Your task to perform on an android device: turn off improve location accuracy Image 0: 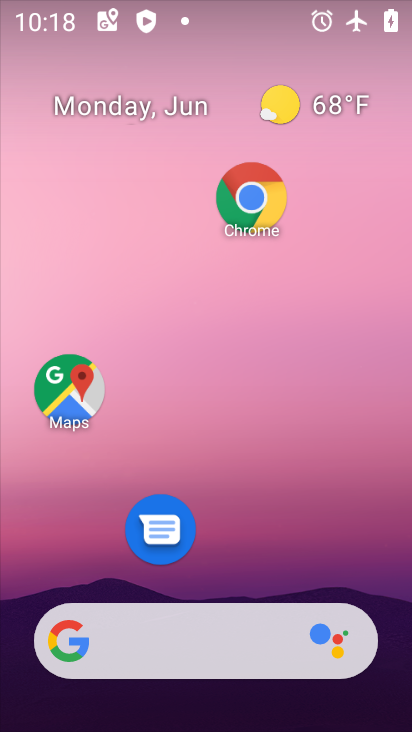
Step 0: drag from (212, 551) to (197, 228)
Your task to perform on an android device: turn off improve location accuracy Image 1: 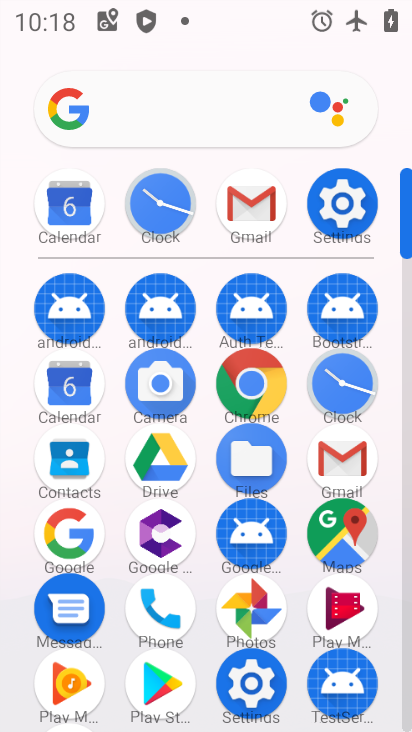
Step 1: click (321, 214)
Your task to perform on an android device: turn off improve location accuracy Image 2: 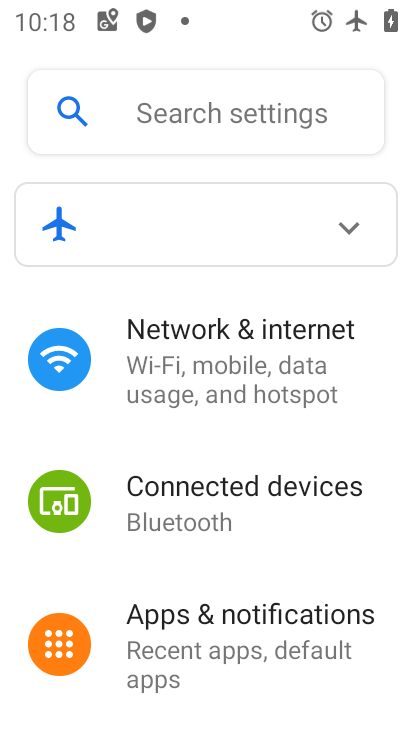
Step 2: drag from (195, 644) to (210, 290)
Your task to perform on an android device: turn off improve location accuracy Image 3: 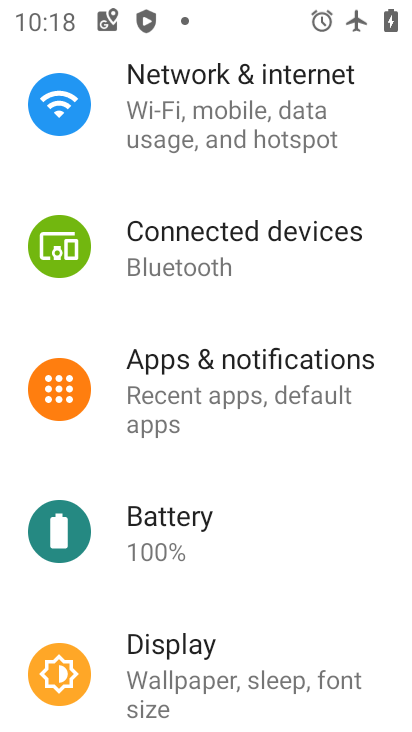
Step 3: drag from (206, 594) to (238, 331)
Your task to perform on an android device: turn off improve location accuracy Image 4: 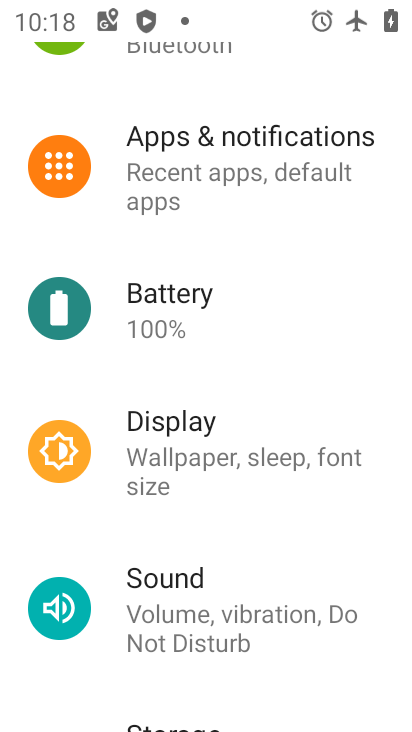
Step 4: drag from (237, 597) to (272, 306)
Your task to perform on an android device: turn off improve location accuracy Image 5: 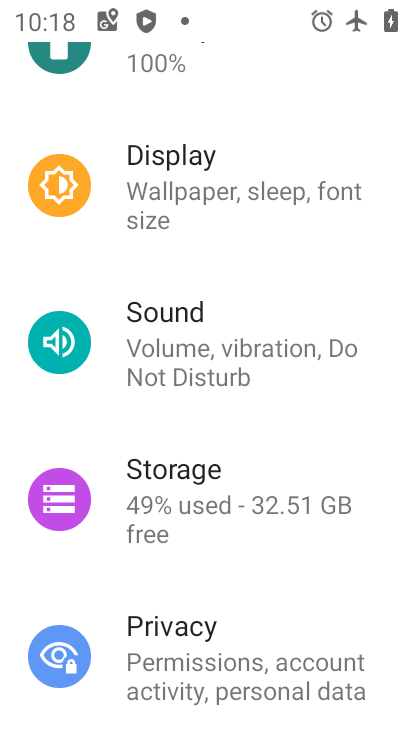
Step 5: drag from (217, 601) to (272, 313)
Your task to perform on an android device: turn off improve location accuracy Image 6: 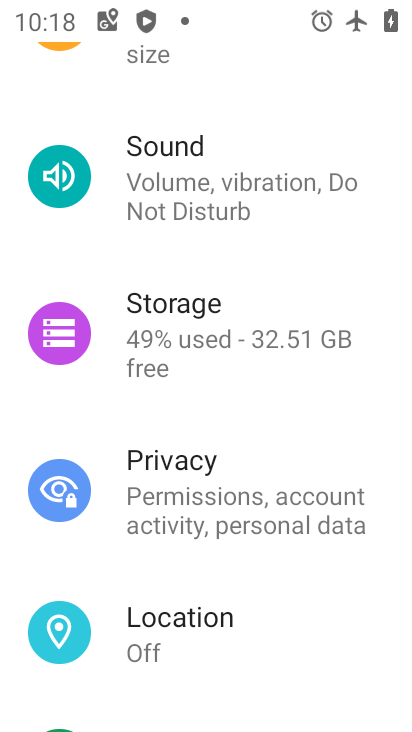
Step 6: click (247, 633)
Your task to perform on an android device: turn off improve location accuracy Image 7: 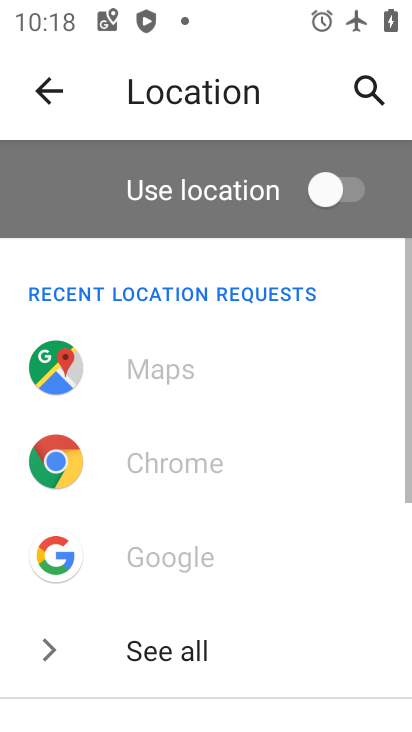
Step 7: drag from (247, 630) to (249, 328)
Your task to perform on an android device: turn off improve location accuracy Image 8: 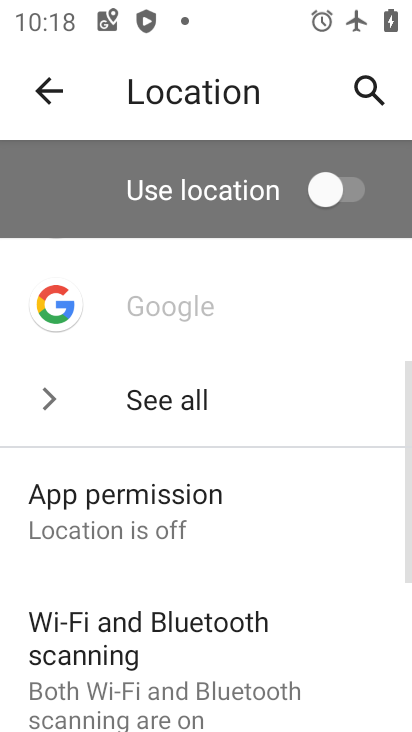
Step 8: drag from (249, 581) to (252, 461)
Your task to perform on an android device: turn off improve location accuracy Image 9: 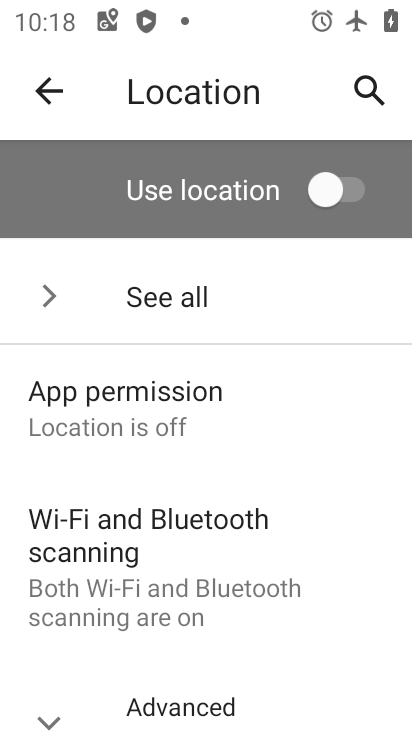
Step 9: click (174, 422)
Your task to perform on an android device: turn off improve location accuracy Image 10: 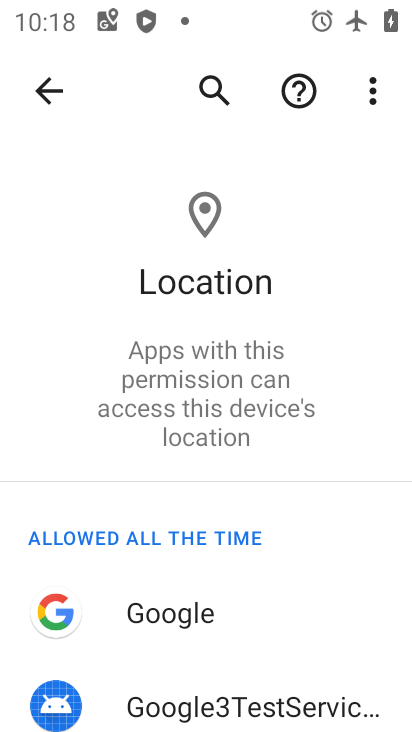
Step 10: drag from (234, 614) to (250, 296)
Your task to perform on an android device: turn off improve location accuracy Image 11: 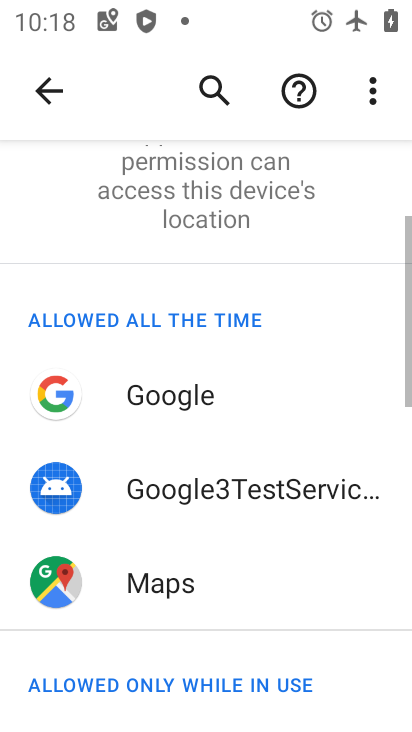
Step 11: drag from (257, 618) to (245, 243)
Your task to perform on an android device: turn off improve location accuracy Image 12: 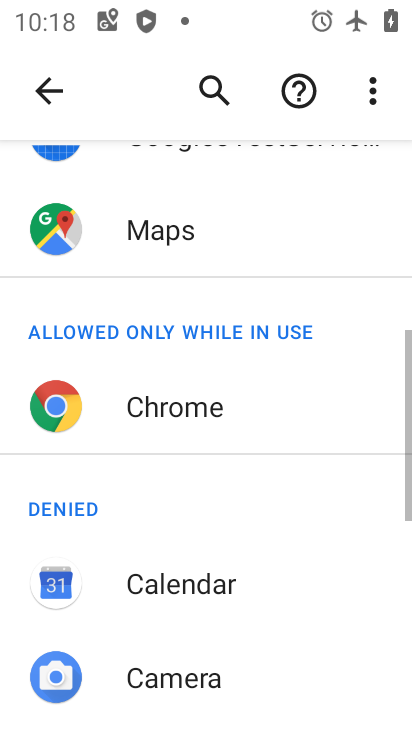
Step 12: drag from (242, 626) to (226, 281)
Your task to perform on an android device: turn off improve location accuracy Image 13: 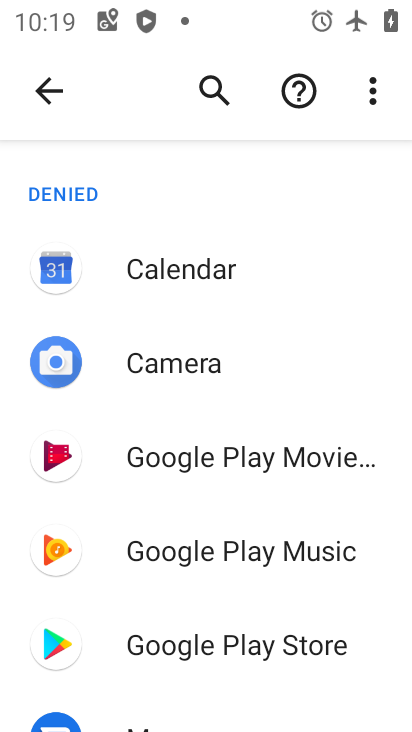
Step 13: drag from (249, 638) to (232, 246)
Your task to perform on an android device: turn off improve location accuracy Image 14: 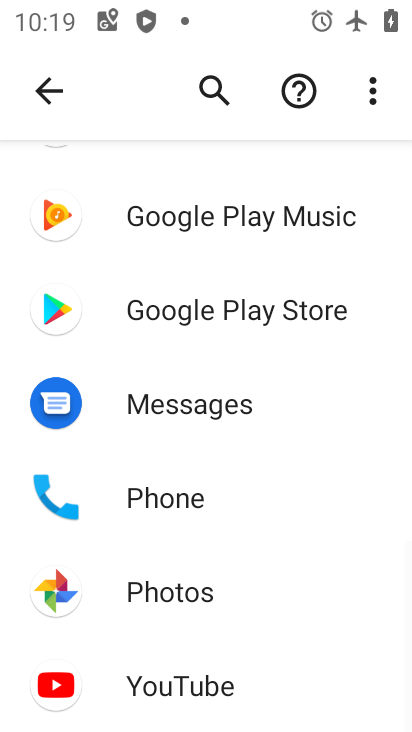
Step 14: drag from (232, 582) to (243, 269)
Your task to perform on an android device: turn off improve location accuracy Image 15: 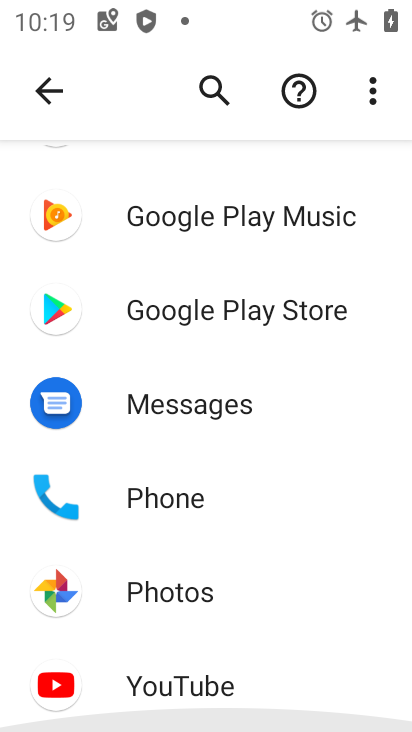
Step 15: drag from (269, 608) to (248, 259)
Your task to perform on an android device: turn off improve location accuracy Image 16: 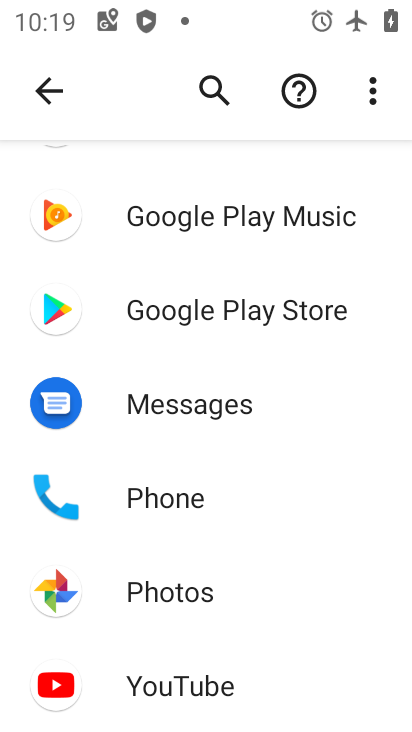
Step 16: click (56, 94)
Your task to perform on an android device: turn off improve location accuracy Image 17: 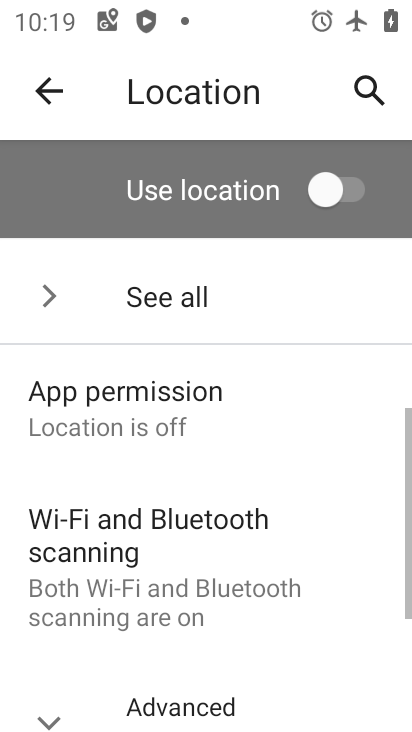
Step 17: drag from (176, 595) to (191, 321)
Your task to perform on an android device: turn off improve location accuracy Image 18: 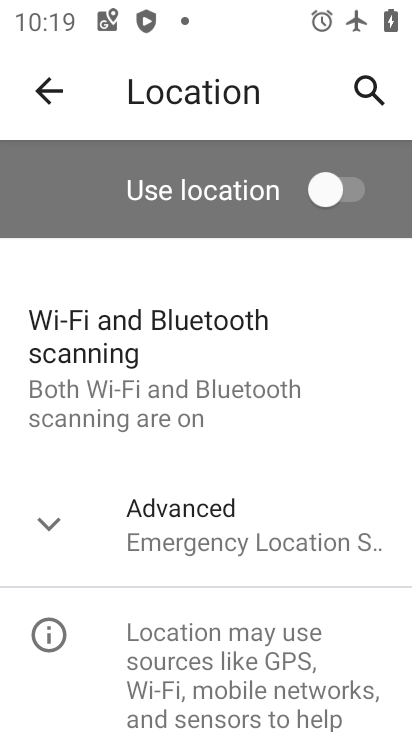
Step 18: click (83, 520)
Your task to perform on an android device: turn off improve location accuracy Image 19: 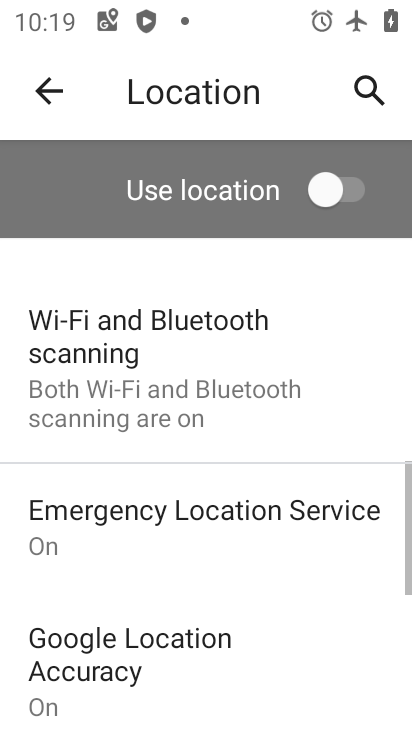
Step 19: drag from (245, 670) to (264, 478)
Your task to perform on an android device: turn off improve location accuracy Image 20: 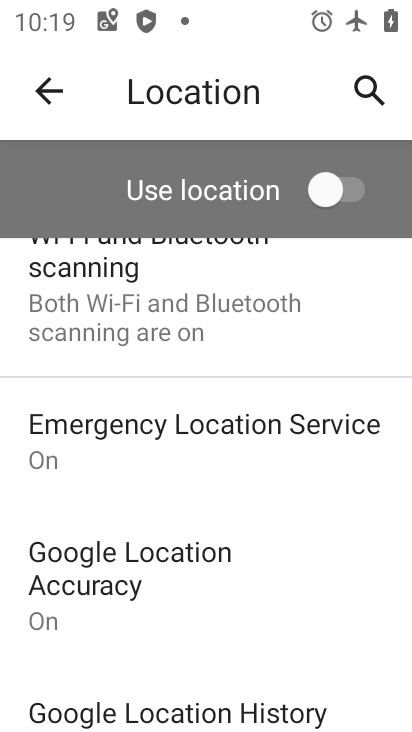
Step 20: click (194, 533)
Your task to perform on an android device: turn off improve location accuracy Image 21: 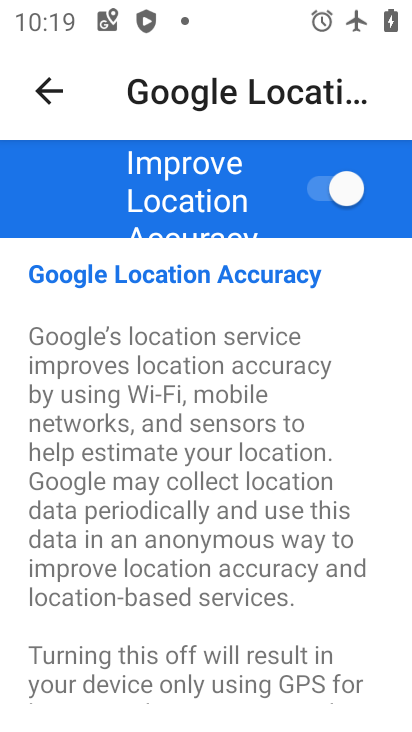
Step 21: click (325, 187)
Your task to perform on an android device: turn off improve location accuracy Image 22: 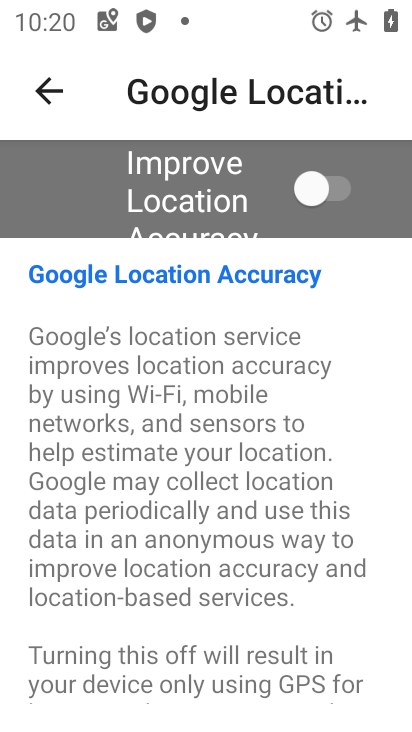
Step 22: task complete